Your task to perform on an android device: Open privacy settings Image 0: 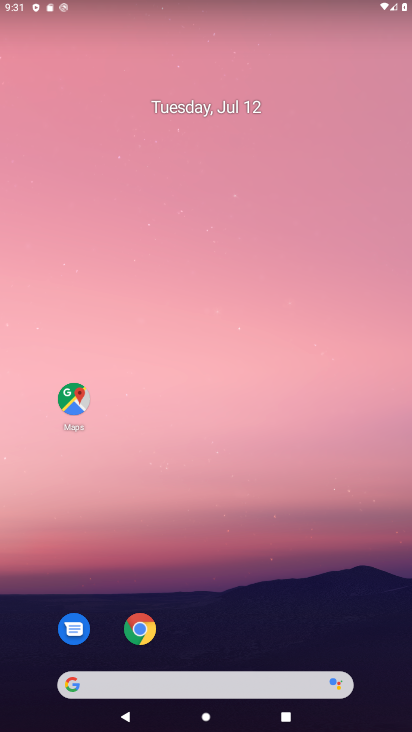
Step 0: drag from (324, 584) to (246, 179)
Your task to perform on an android device: Open privacy settings Image 1: 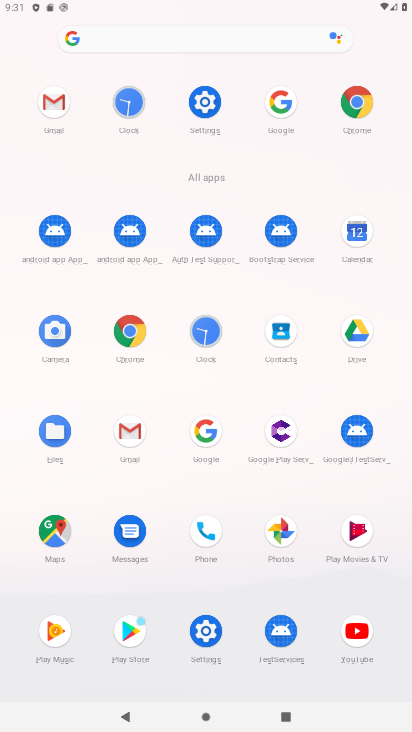
Step 1: click (212, 104)
Your task to perform on an android device: Open privacy settings Image 2: 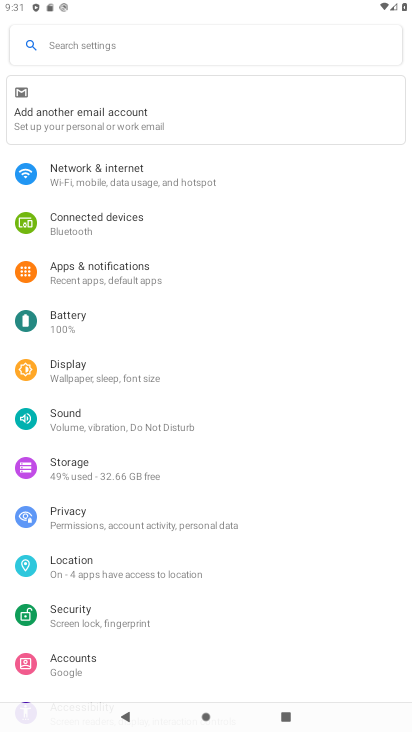
Step 2: click (89, 514)
Your task to perform on an android device: Open privacy settings Image 3: 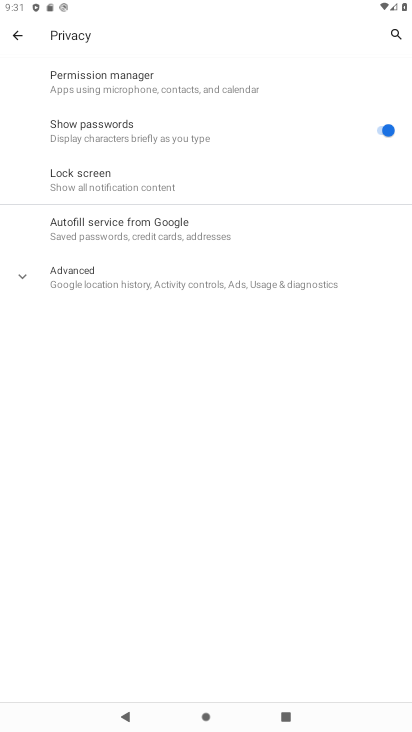
Step 3: task complete